Your task to perform on an android device: toggle translation in the chrome app Image 0: 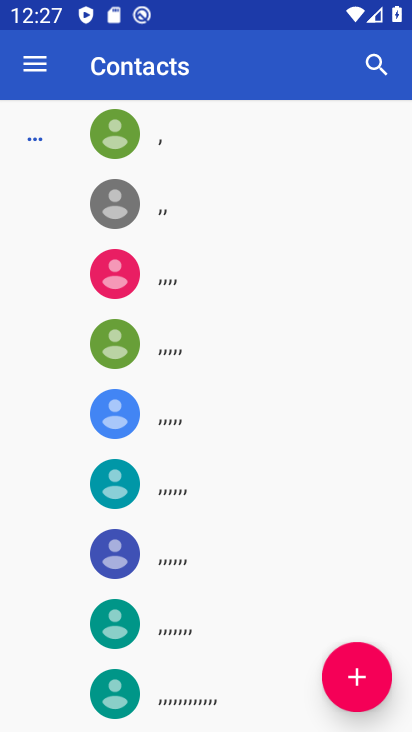
Step 0: press back button
Your task to perform on an android device: toggle translation in the chrome app Image 1: 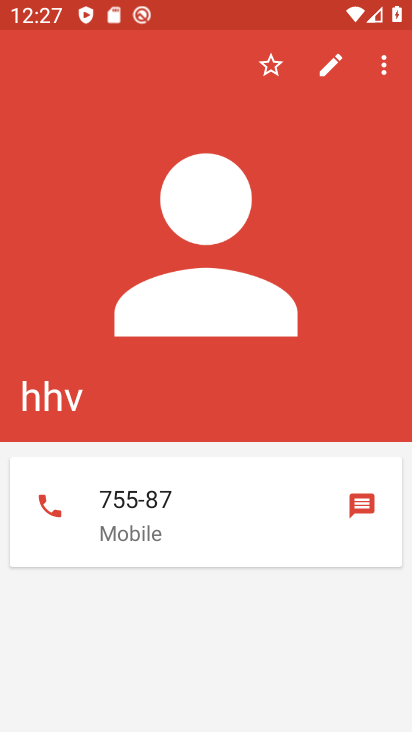
Step 1: press back button
Your task to perform on an android device: toggle translation in the chrome app Image 2: 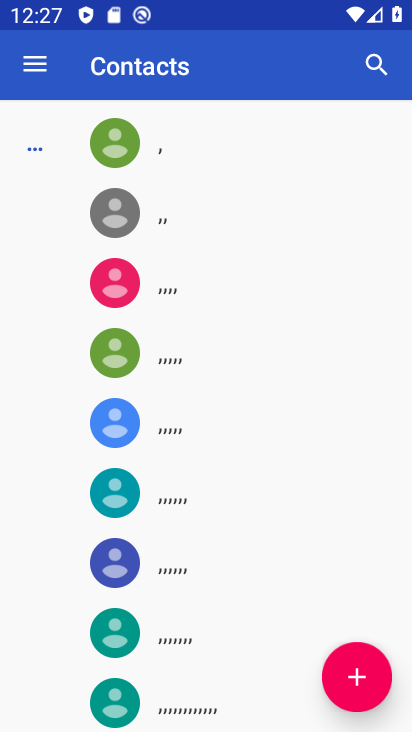
Step 2: press back button
Your task to perform on an android device: toggle translation in the chrome app Image 3: 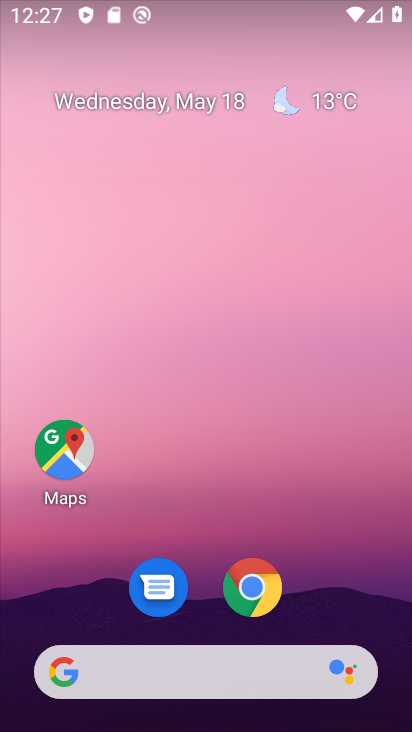
Step 3: click (243, 590)
Your task to perform on an android device: toggle translation in the chrome app Image 4: 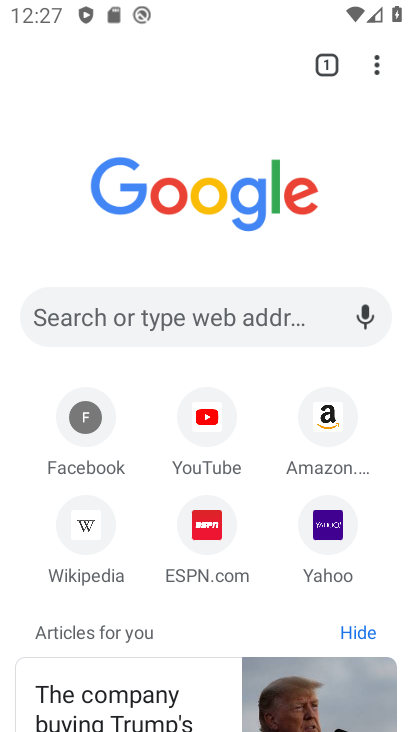
Step 4: drag from (378, 66) to (147, 550)
Your task to perform on an android device: toggle translation in the chrome app Image 5: 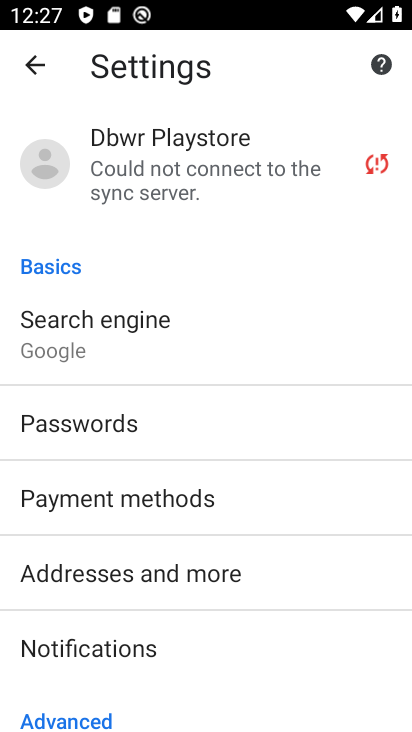
Step 5: drag from (156, 584) to (246, 137)
Your task to perform on an android device: toggle translation in the chrome app Image 6: 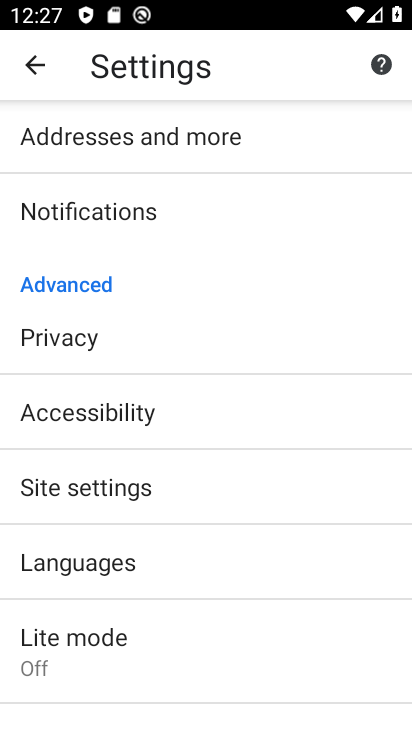
Step 6: drag from (110, 652) to (180, 363)
Your task to perform on an android device: toggle translation in the chrome app Image 7: 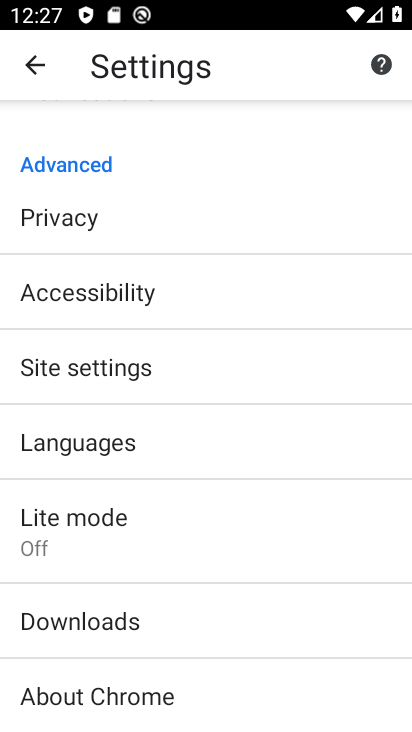
Step 7: click (136, 439)
Your task to perform on an android device: toggle translation in the chrome app Image 8: 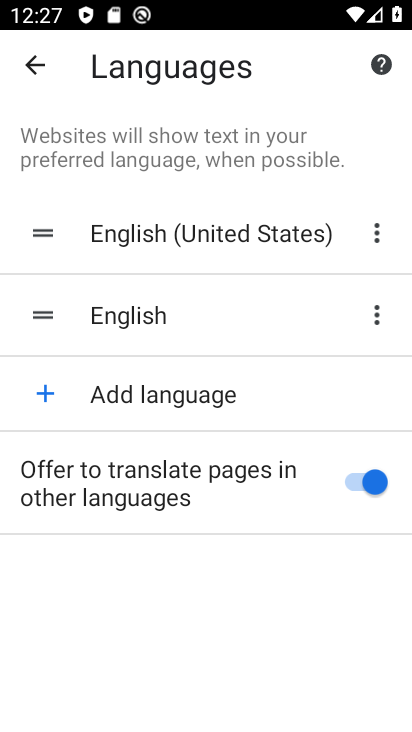
Step 8: click (354, 478)
Your task to perform on an android device: toggle translation in the chrome app Image 9: 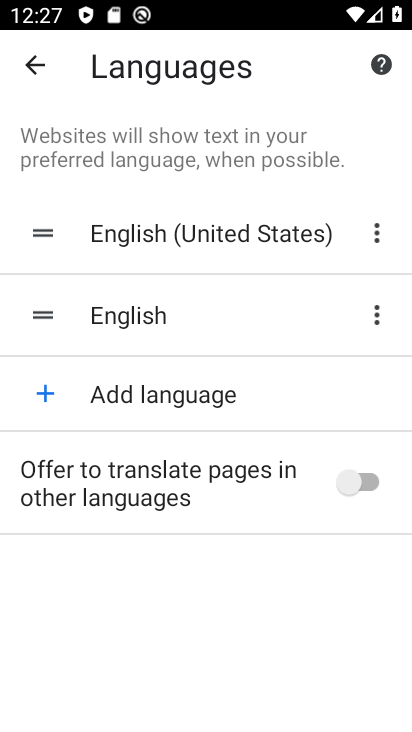
Step 9: task complete